Your task to perform on an android device: set the stopwatch Image 0: 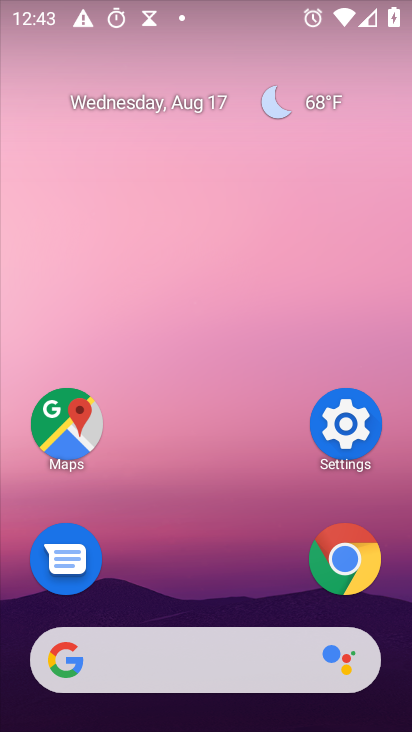
Step 0: drag from (247, 631) to (266, 182)
Your task to perform on an android device: set the stopwatch Image 1: 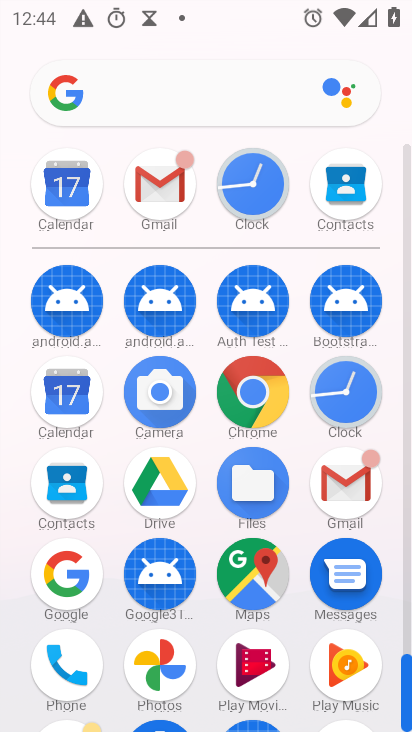
Step 1: click (246, 180)
Your task to perform on an android device: set the stopwatch Image 2: 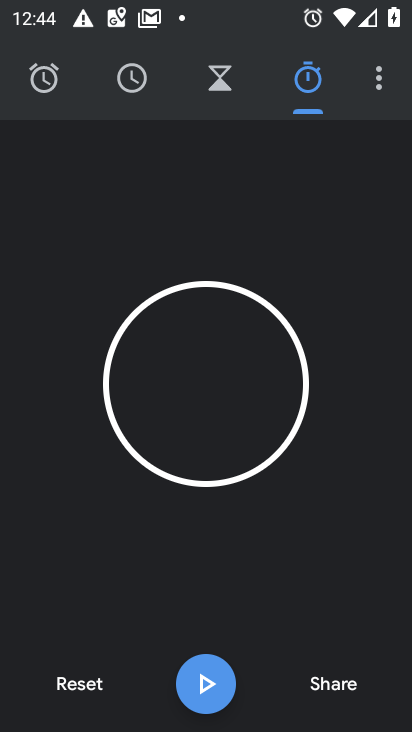
Step 2: click (84, 671)
Your task to perform on an android device: set the stopwatch Image 3: 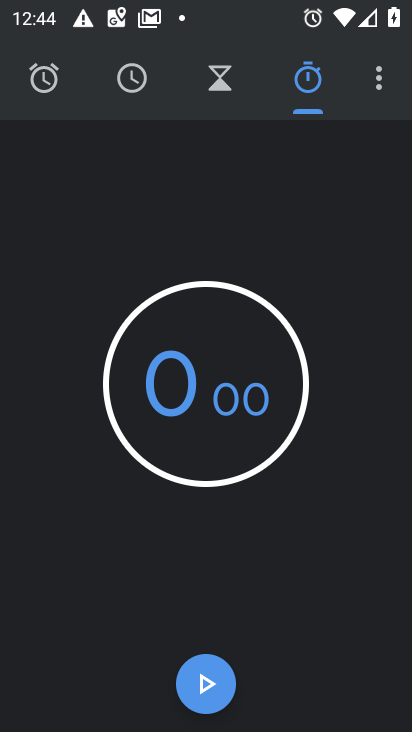
Step 3: click (182, 399)
Your task to perform on an android device: set the stopwatch Image 4: 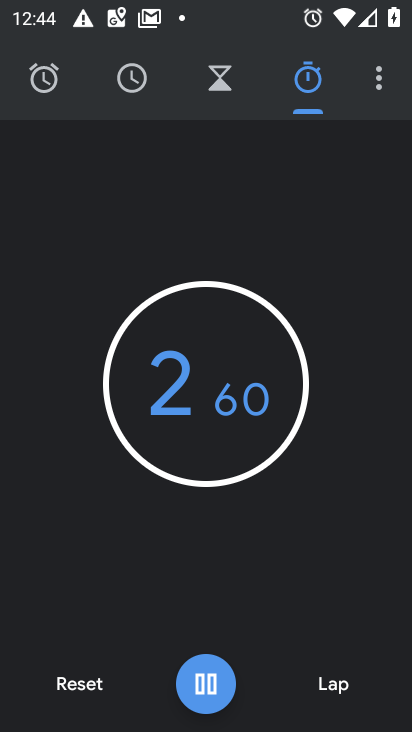
Step 4: click (208, 395)
Your task to perform on an android device: set the stopwatch Image 5: 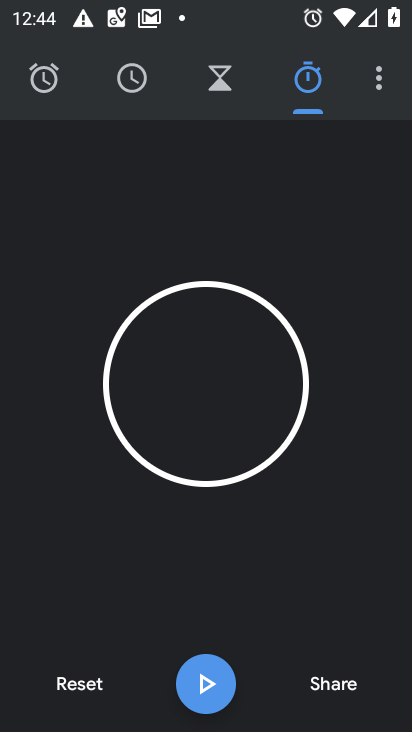
Step 5: task complete